Your task to perform on an android device: Show me recent news Image 0: 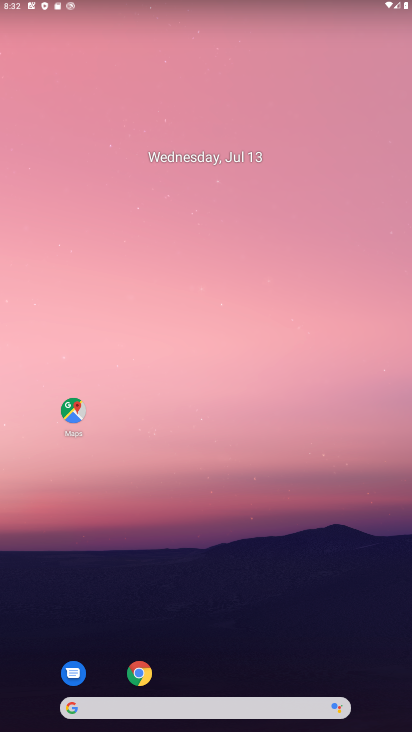
Step 0: drag from (357, 624) to (152, 131)
Your task to perform on an android device: Show me recent news Image 1: 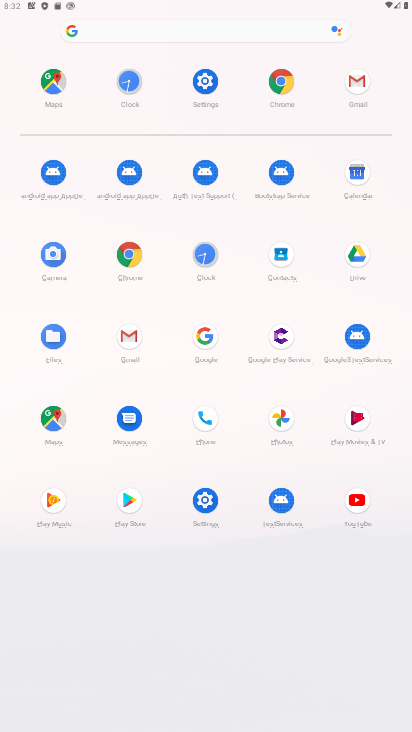
Step 1: click (283, 81)
Your task to perform on an android device: Show me recent news Image 2: 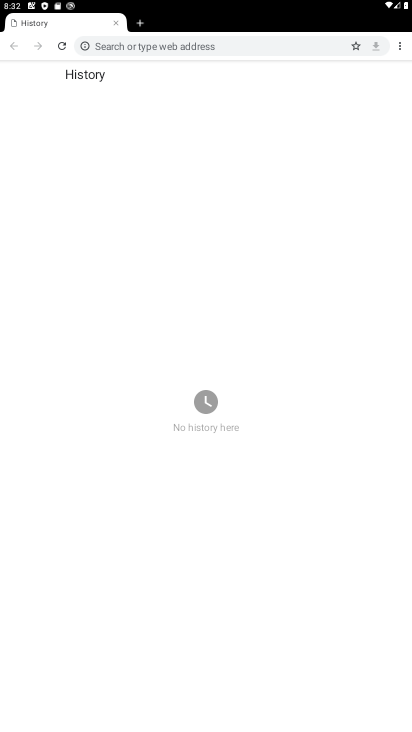
Step 2: click (257, 42)
Your task to perform on an android device: Show me recent news Image 3: 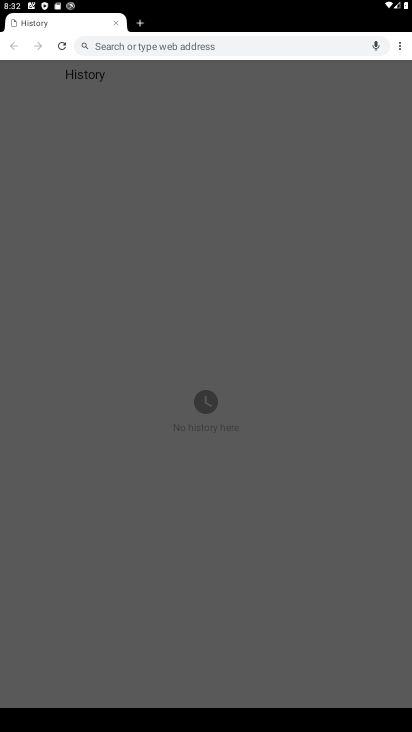
Step 3: type "news"
Your task to perform on an android device: Show me recent news Image 4: 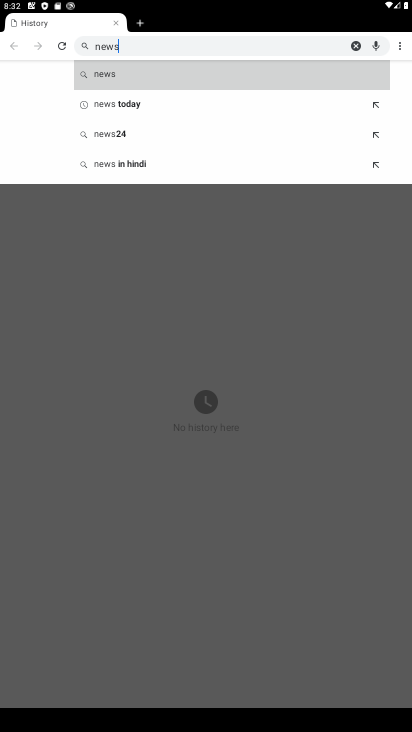
Step 4: click (97, 76)
Your task to perform on an android device: Show me recent news Image 5: 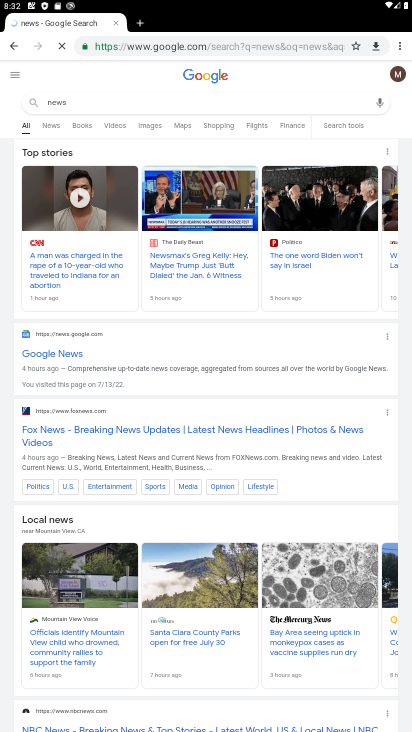
Step 5: click (62, 359)
Your task to perform on an android device: Show me recent news Image 6: 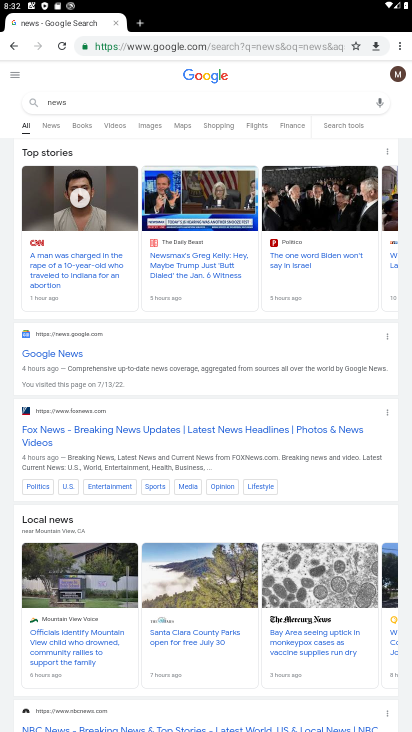
Step 6: click (61, 349)
Your task to perform on an android device: Show me recent news Image 7: 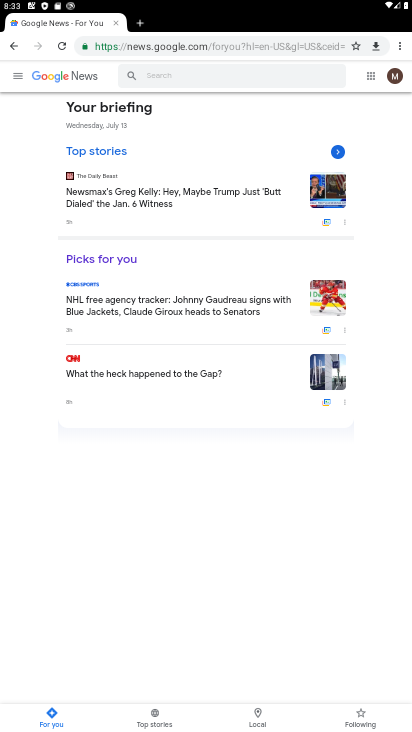
Step 7: task complete